Your task to perform on an android device: install app "Google Chrome" Image 0: 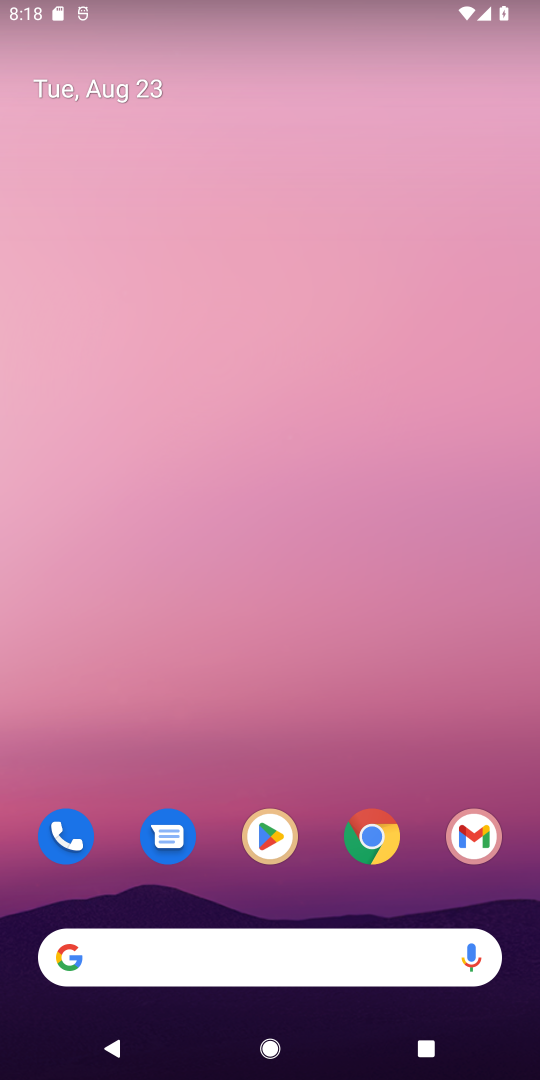
Step 0: click (273, 839)
Your task to perform on an android device: install app "Google Chrome" Image 1: 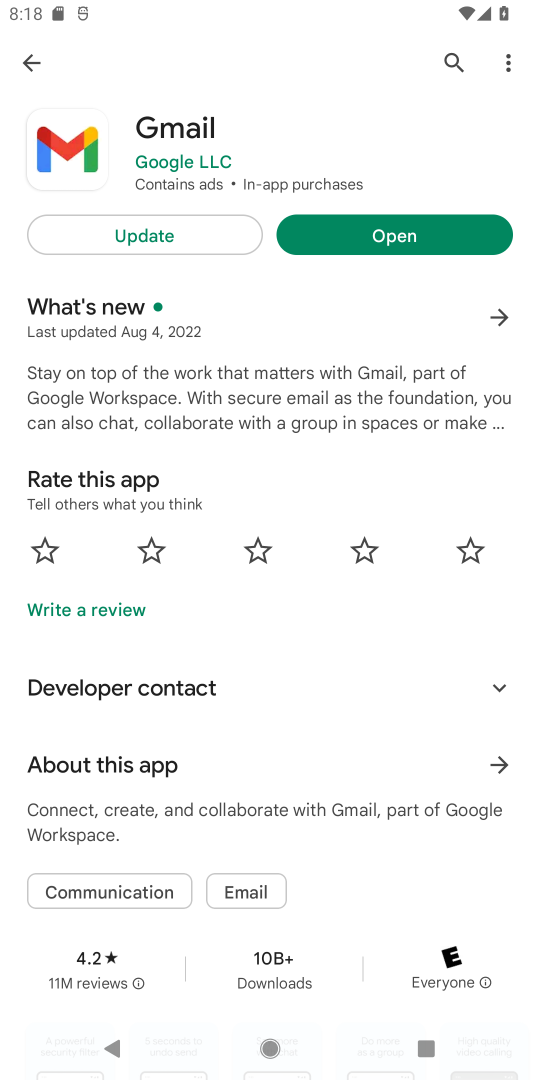
Step 1: click (451, 61)
Your task to perform on an android device: install app "Google Chrome" Image 2: 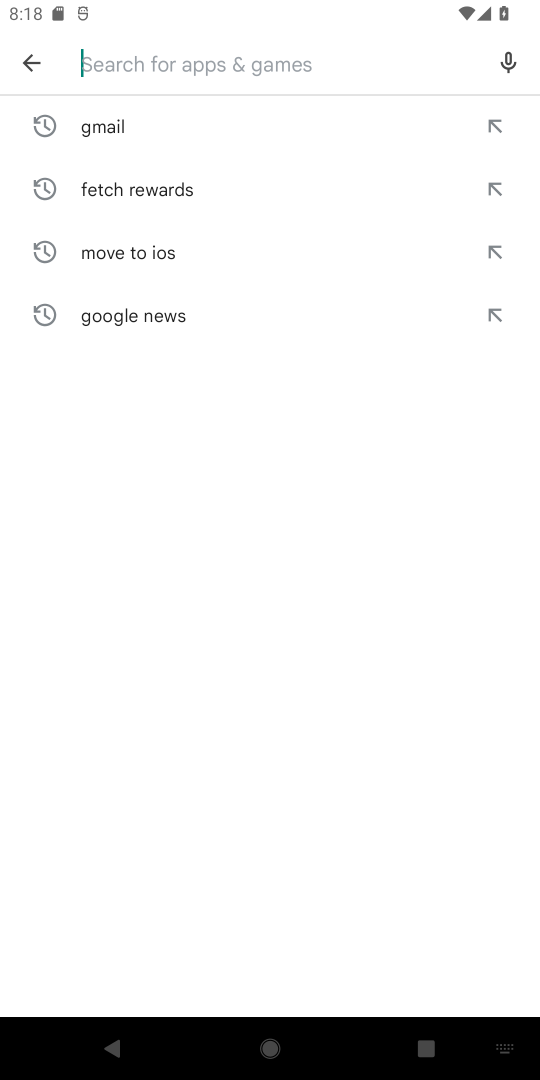
Step 2: type "Google Chrome"
Your task to perform on an android device: install app "Google Chrome" Image 3: 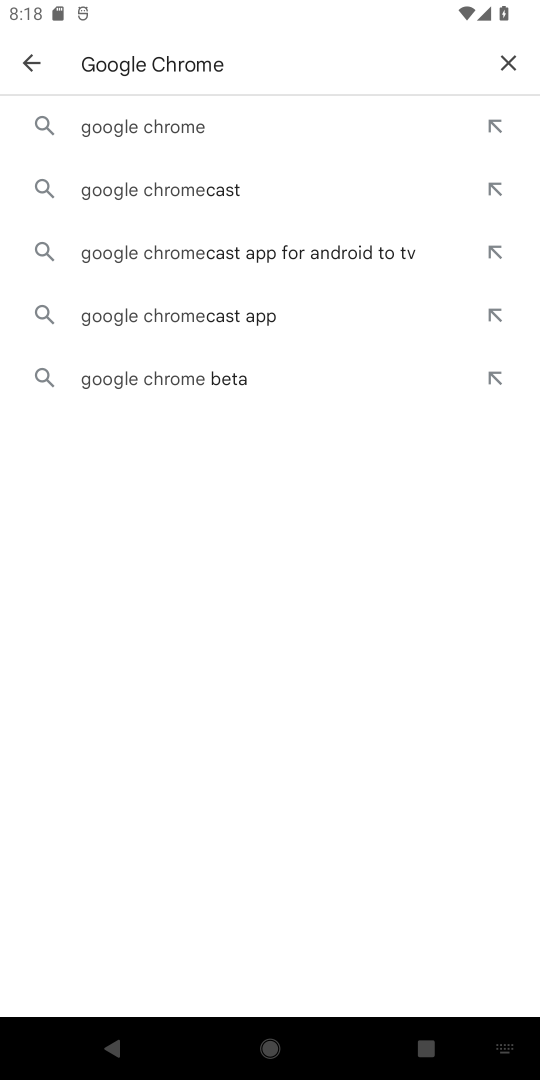
Step 3: click (162, 142)
Your task to perform on an android device: install app "Google Chrome" Image 4: 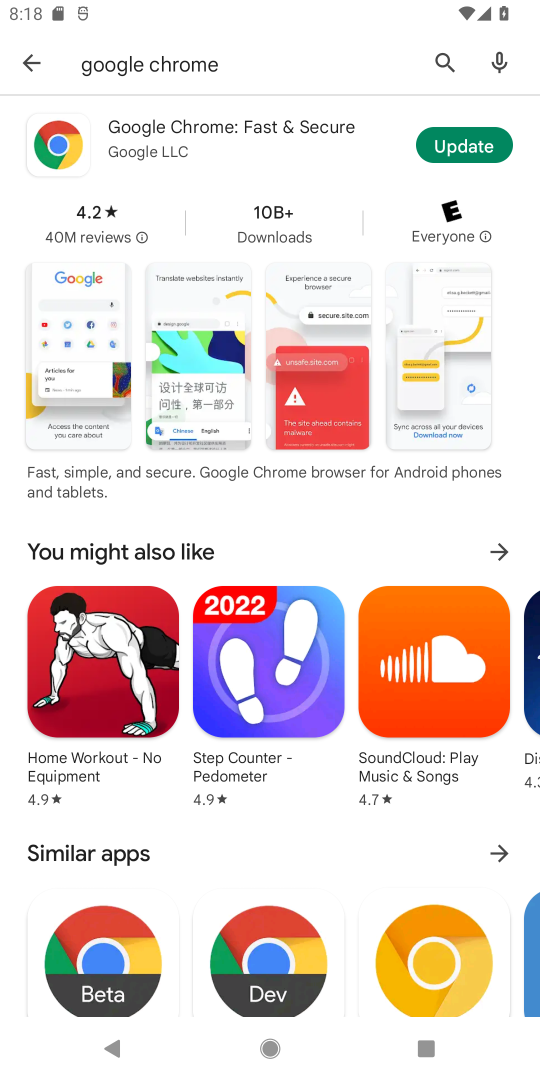
Step 4: task complete